Your task to perform on an android device: turn on javascript in the chrome app Image 0: 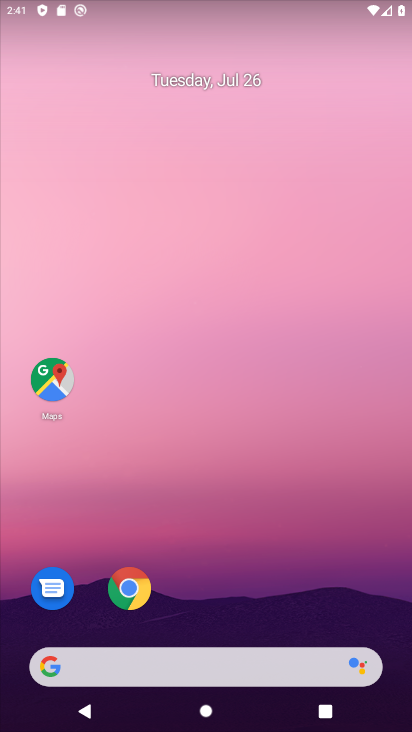
Step 0: drag from (195, 596) to (213, 10)
Your task to perform on an android device: turn on javascript in the chrome app Image 1: 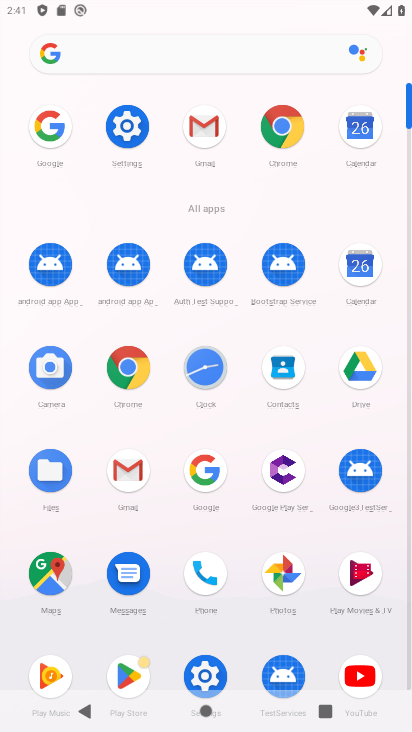
Step 1: click (277, 124)
Your task to perform on an android device: turn on javascript in the chrome app Image 2: 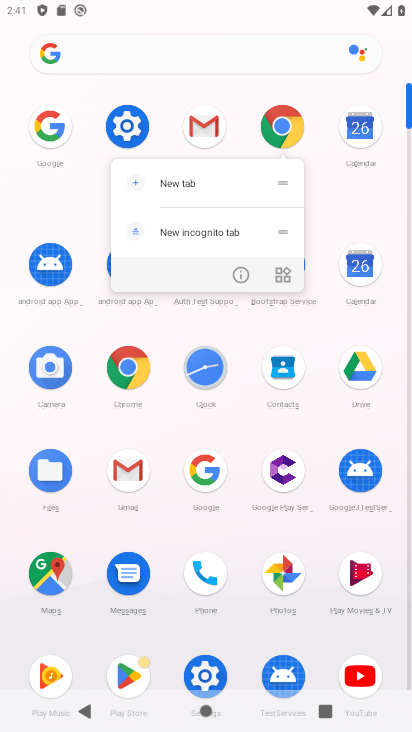
Step 2: click (277, 124)
Your task to perform on an android device: turn on javascript in the chrome app Image 3: 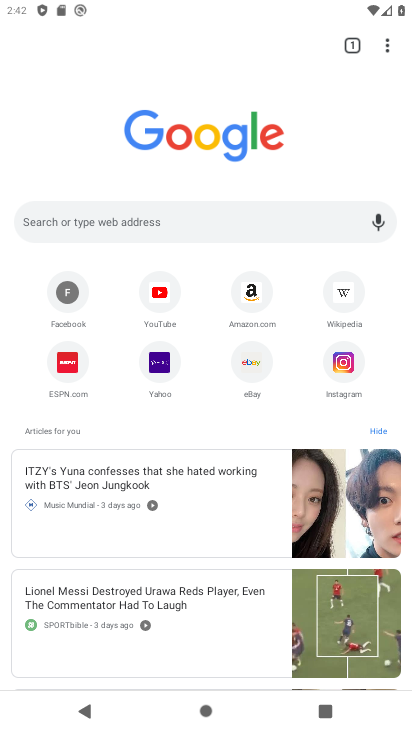
Step 3: drag from (382, 60) to (222, 367)
Your task to perform on an android device: turn on javascript in the chrome app Image 4: 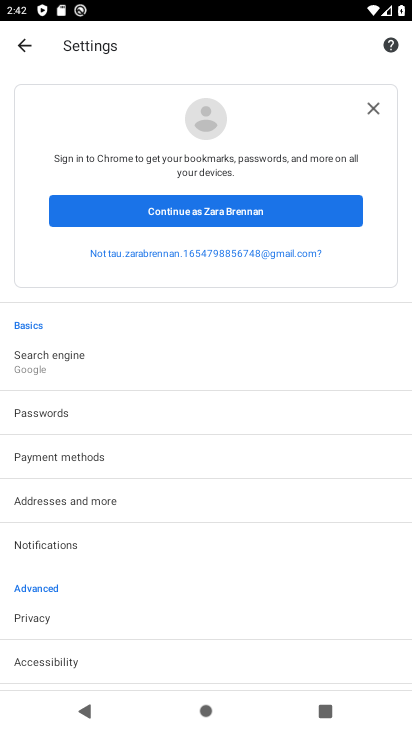
Step 4: drag from (100, 574) to (215, 198)
Your task to perform on an android device: turn on javascript in the chrome app Image 5: 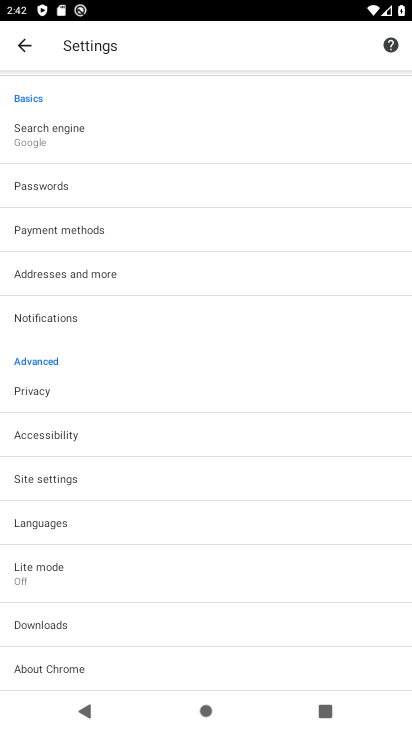
Step 5: click (53, 478)
Your task to perform on an android device: turn on javascript in the chrome app Image 6: 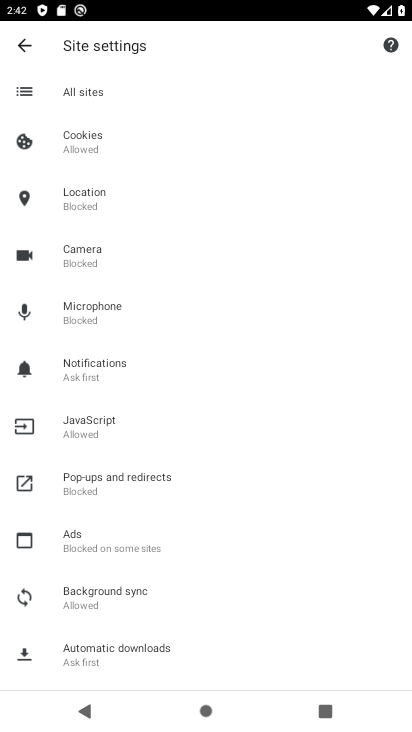
Step 6: click (60, 438)
Your task to perform on an android device: turn on javascript in the chrome app Image 7: 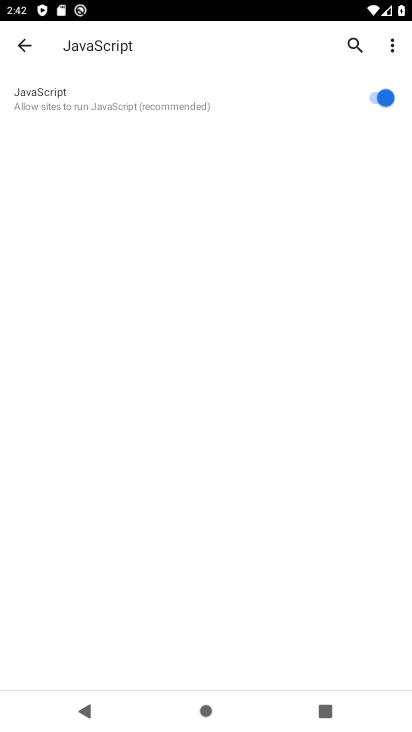
Step 7: task complete